Your task to perform on an android device: read, delete, or share a saved page in the chrome app Image 0: 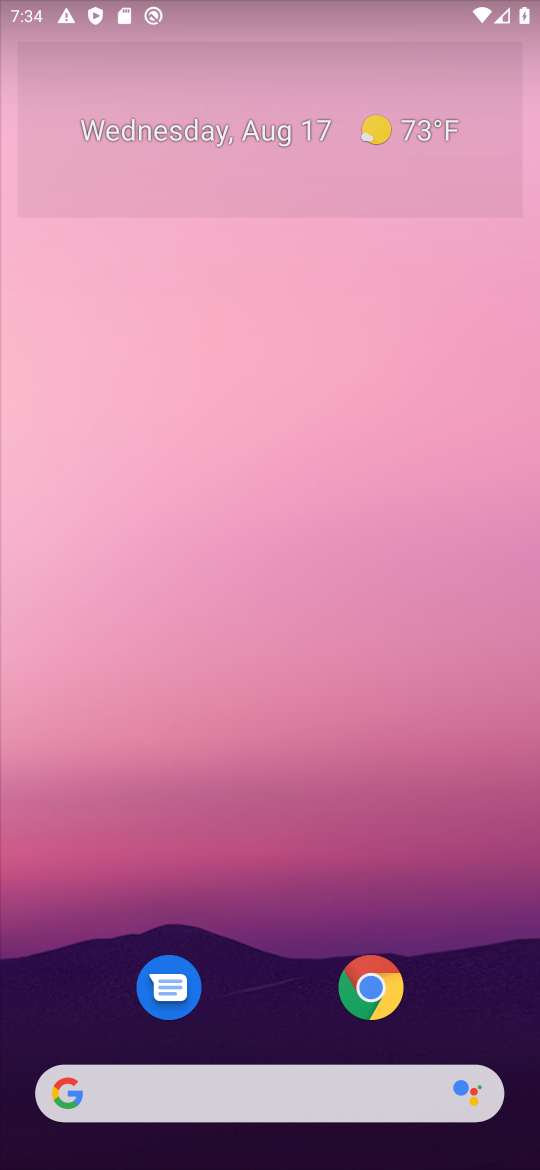
Step 0: drag from (498, 1012) to (203, 25)
Your task to perform on an android device: read, delete, or share a saved page in the chrome app Image 1: 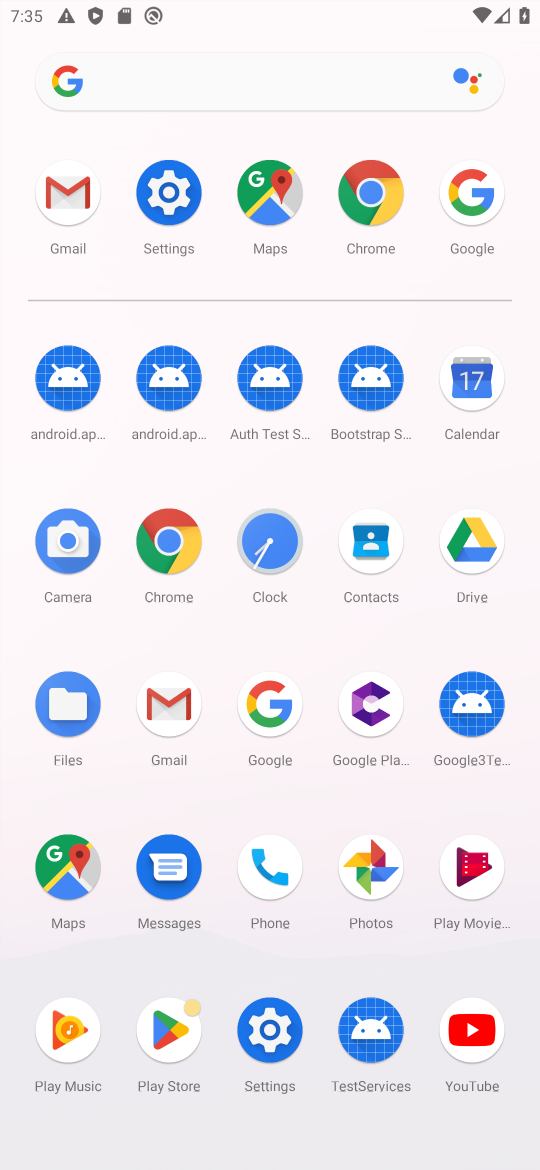
Step 1: click (165, 534)
Your task to perform on an android device: read, delete, or share a saved page in the chrome app Image 2: 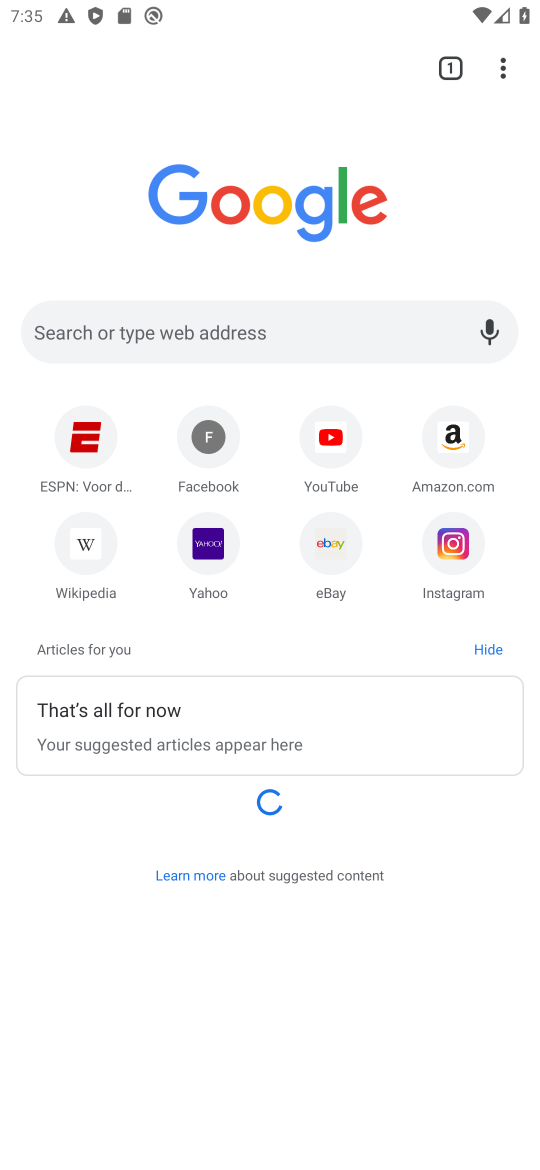
Step 2: task complete